Your task to perform on an android device: What's on my calendar tomorrow? Image 0: 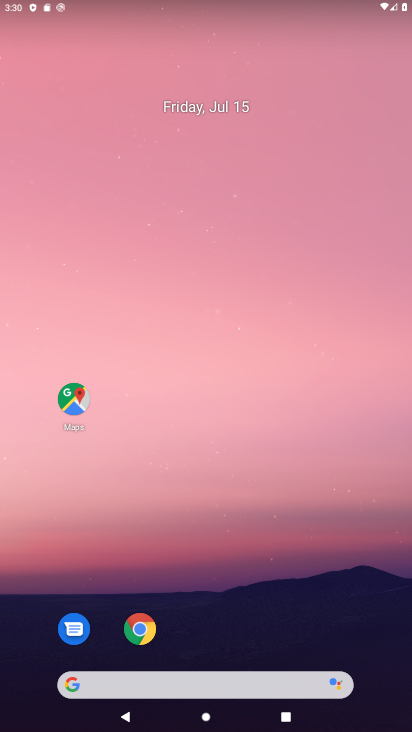
Step 0: drag from (336, 566) to (345, 160)
Your task to perform on an android device: What's on my calendar tomorrow? Image 1: 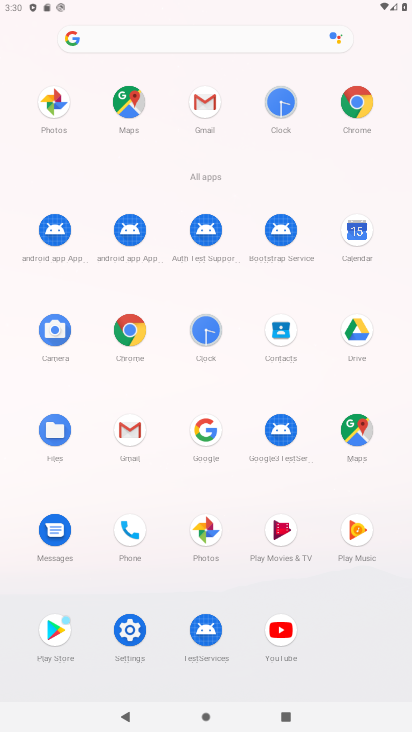
Step 1: click (354, 235)
Your task to perform on an android device: What's on my calendar tomorrow? Image 2: 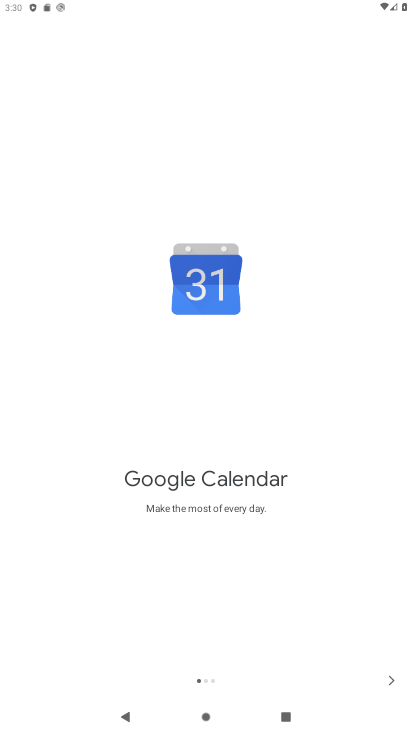
Step 2: click (384, 659)
Your task to perform on an android device: What's on my calendar tomorrow? Image 3: 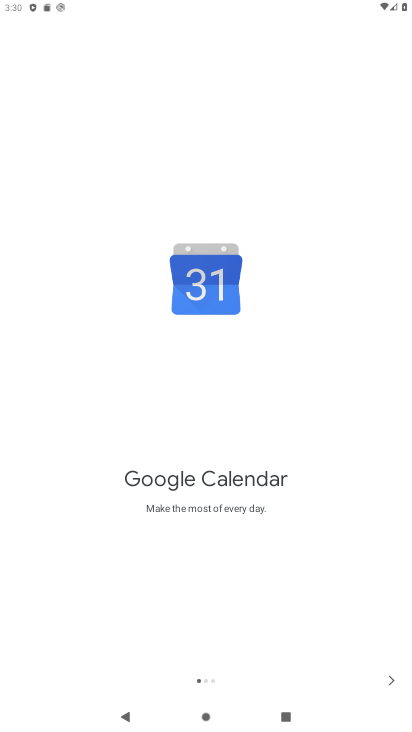
Step 3: click (390, 683)
Your task to perform on an android device: What's on my calendar tomorrow? Image 4: 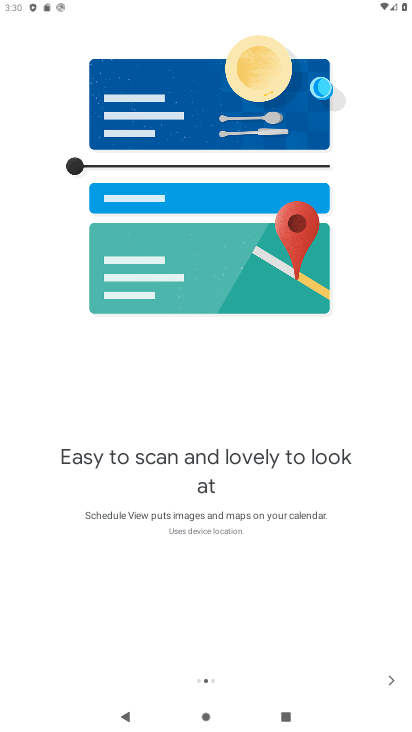
Step 4: click (390, 683)
Your task to perform on an android device: What's on my calendar tomorrow? Image 5: 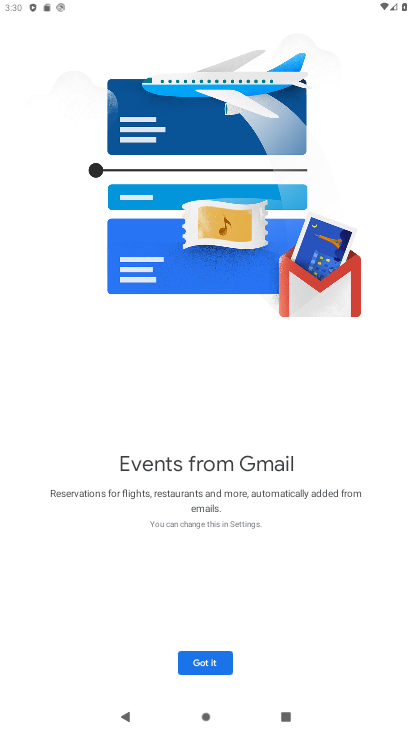
Step 5: click (390, 683)
Your task to perform on an android device: What's on my calendar tomorrow? Image 6: 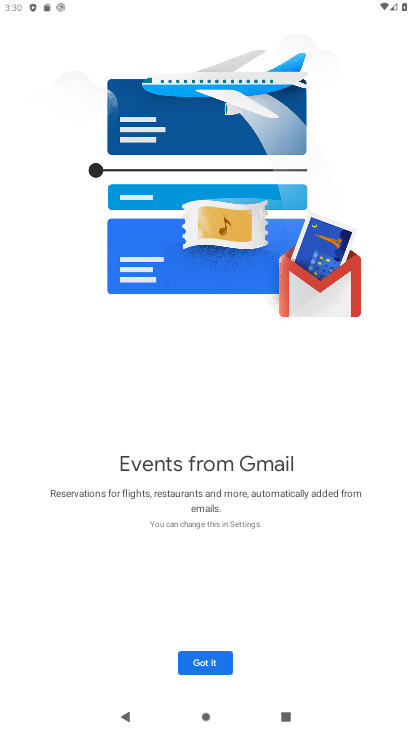
Step 6: click (191, 659)
Your task to perform on an android device: What's on my calendar tomorrow? Image 7: 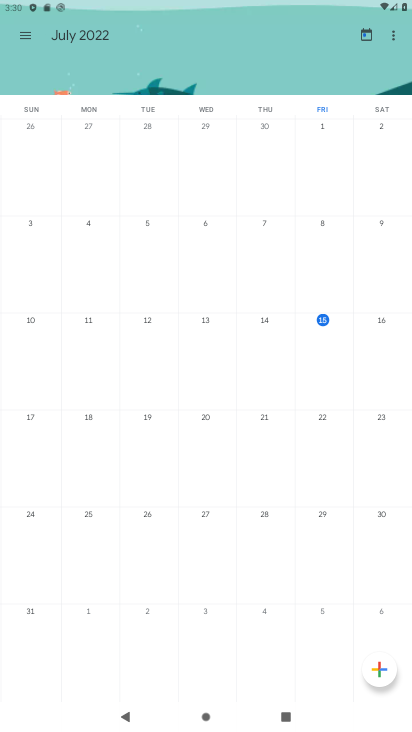
Step 7: click (380, 315)
Your task to perform on an android device: What's on my calendar tomorrow? Image 8: 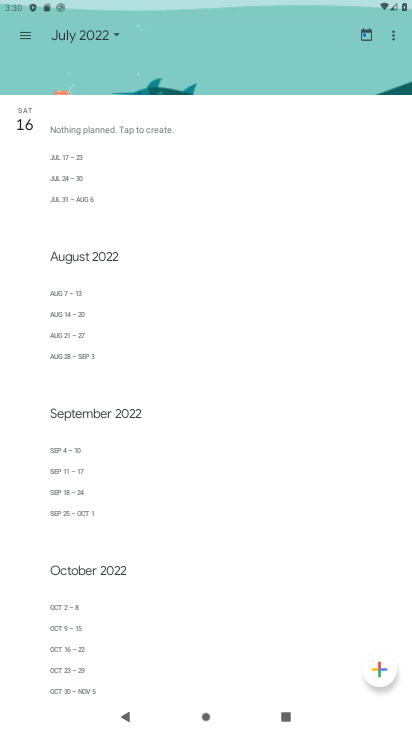
Step 8: task complete